Your task to perform on an android device: turn on bluetooth scan Image 0: 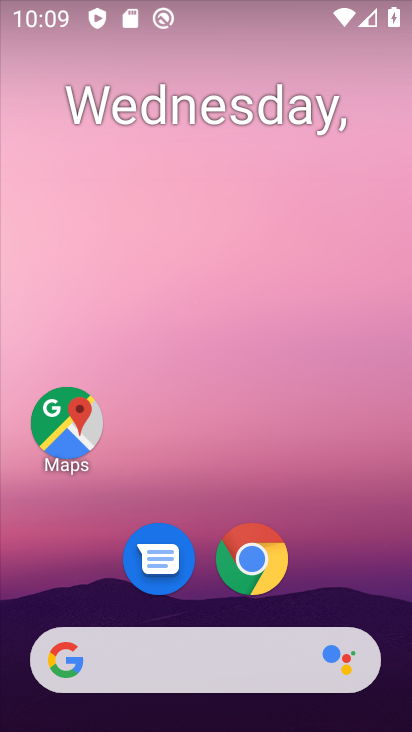
Step 0: drag from (354, 533) to (409, 431)
Your task to perform on an android device: turn on bluetooth scan Image 1: 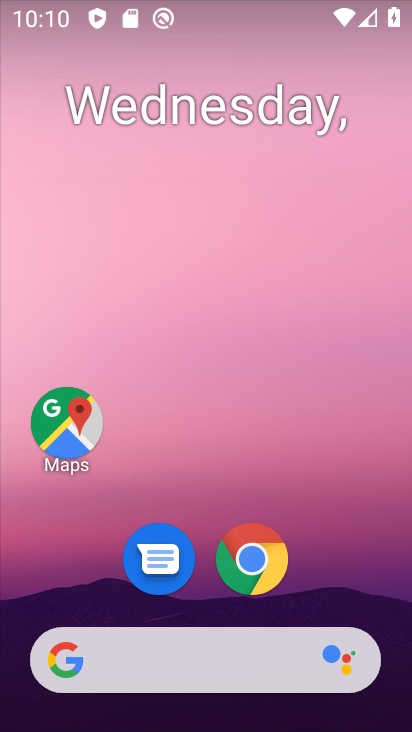
Step 1: drag from (337, 598) to (331, 15)
Your task to perform on an android device: turn on bluetooth scan Image 2: 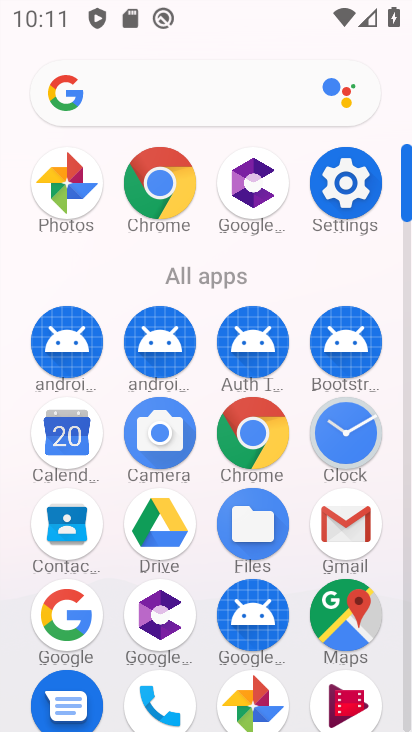
Step 2: click (357, 204)
Your task to perform on an android device: turn on bluetooth scan Image 3: 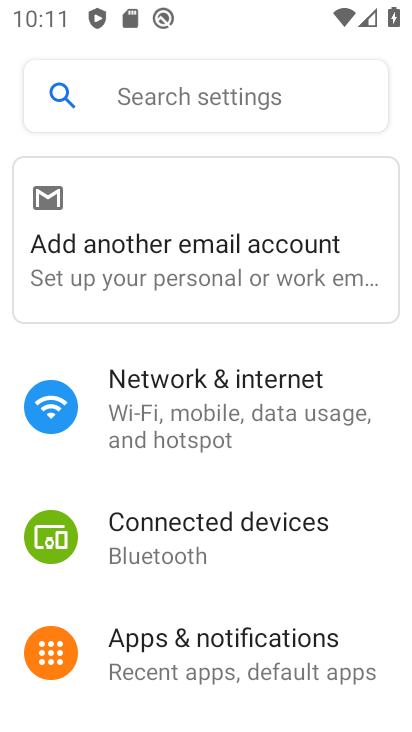
Step 3: drag from (305, 644) to (266, 328)
Your task to perform on an android device: turn on bluetooth scan Image 4: 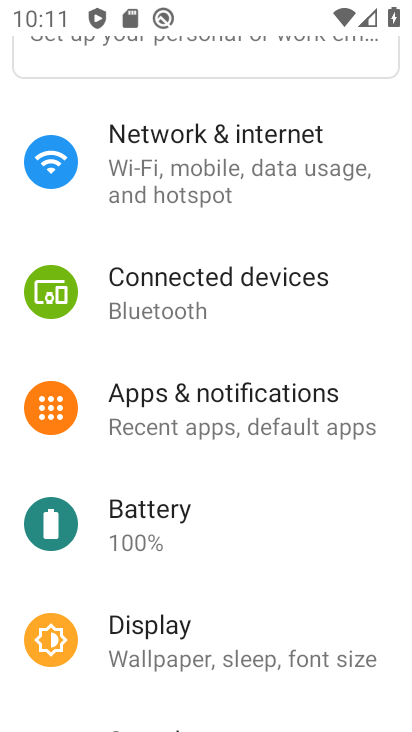
Step 4: drag from (324, 486) to (315, 310)
Your task to perform on an android device: turn on bluetooth scan Image 5: 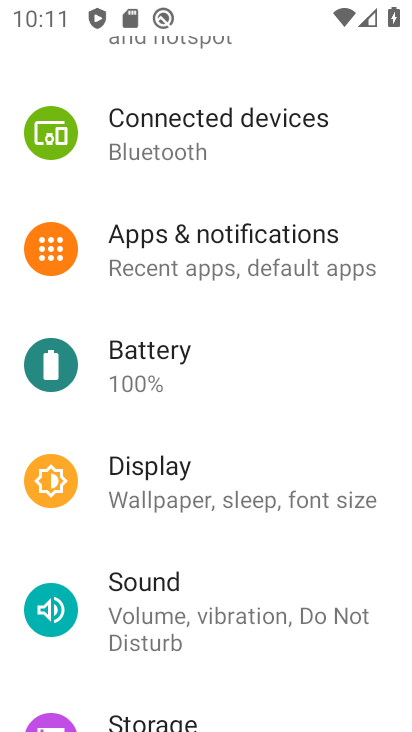
Step 5: click (180, 504)
Your task to perform on an android device: turn on bluetooth scan Image 6: 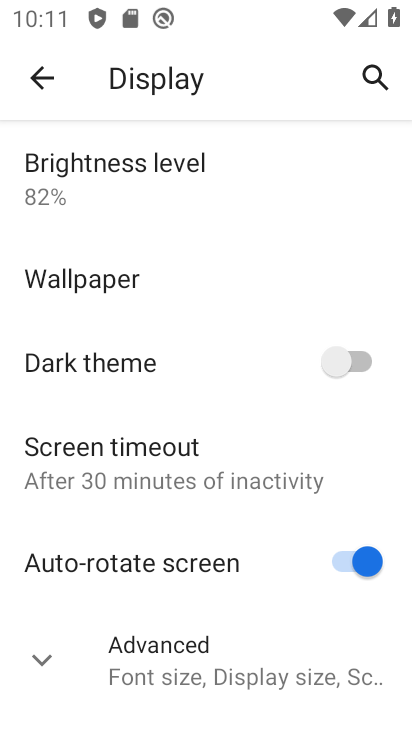
Step 6: click (57, 89)
Your task to perform on an android device: turn on bluetooth scan Image 7: 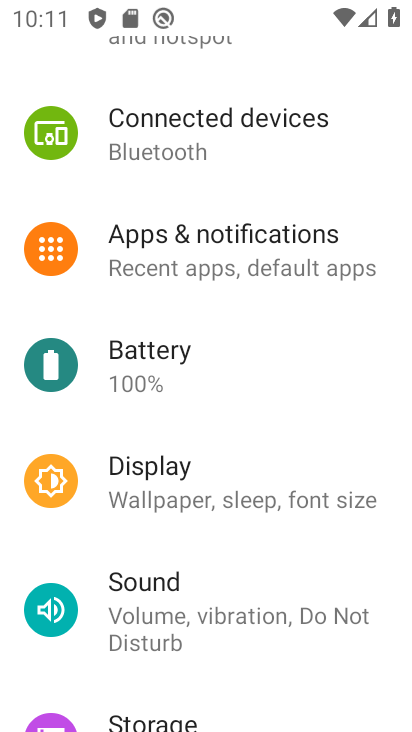
Step 7: drag from (211, 652) to (199, 555)
Your task to perform on an android device: turn on bluetooth scan Image 8: 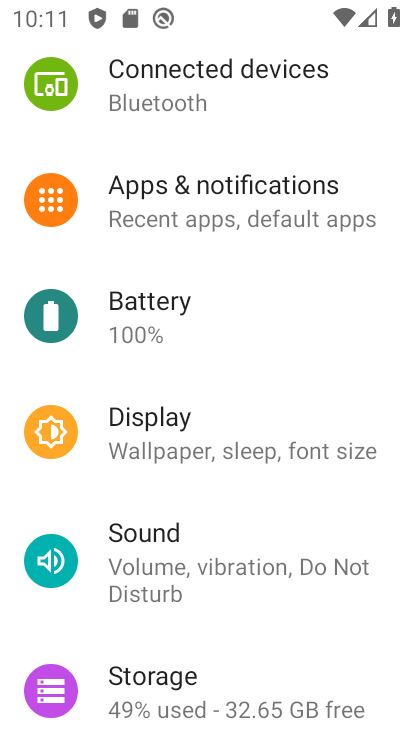
Step 8: drag from (319, 663) to (250, 238)
Your task to perform on an android device: turn on bluetooth scan Image 9: 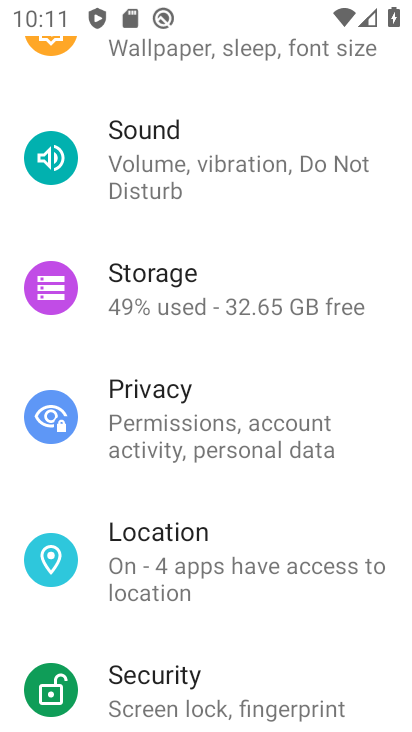
Step 9: drag from (285, 703) to (294, 329)
Your task to perform on an android device: turn on bluetooth scan Image 10: 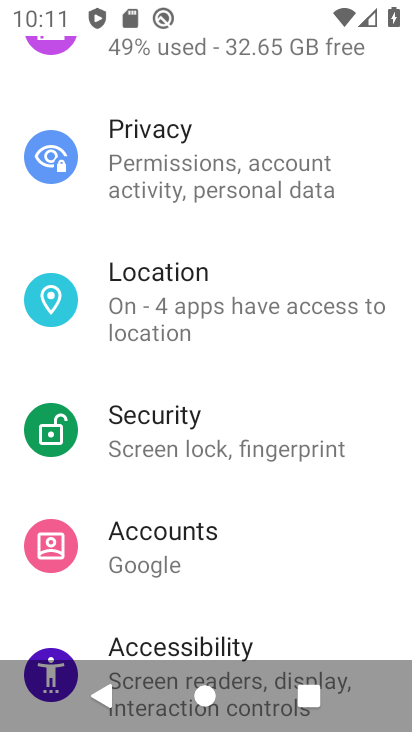
Step 10: drag from (251, 559) to (311, 165)
Your task to perform on an android device: turn on bluetooth scan Image 11: 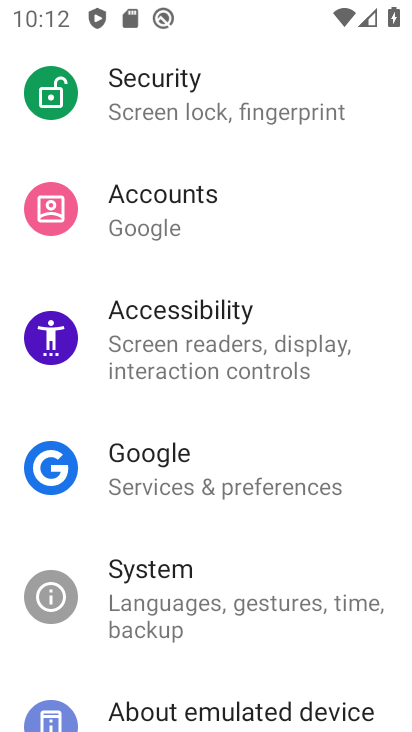
Step 11: drag from (179, 602) to (114, 311)
Your task to perform on an android device: turn on bluetooth scan Image 12: 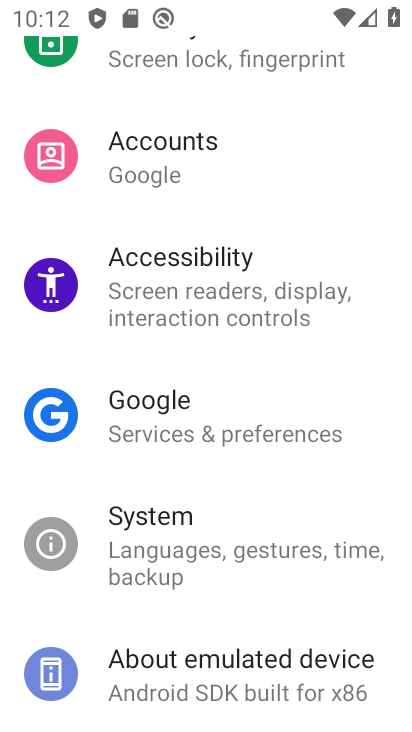
Step 12: drag from (288, 641) to (263, 544)
Your task to perform on an android device: turn on bluetooth scan Image 13: 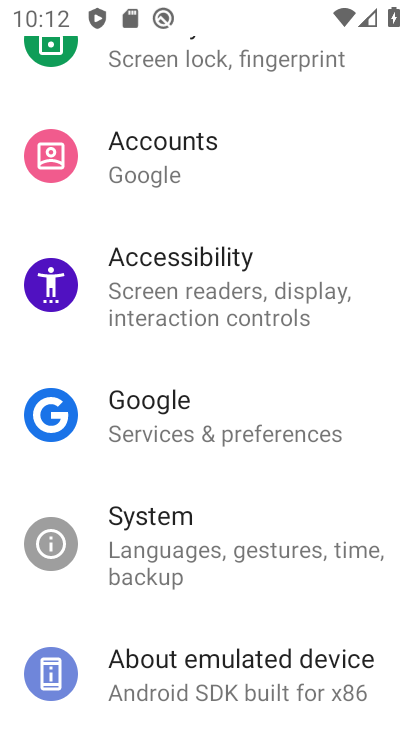
Step 13: drag from (243, 271) to (279, 701)
Your task to perform on an android device: turn on bluetooth scan Image 14: 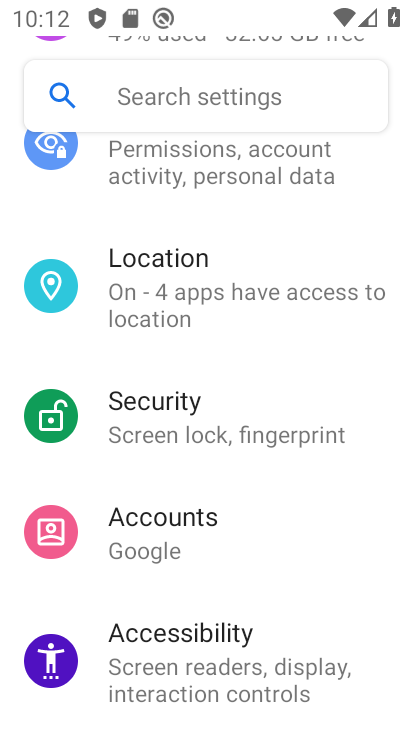
Step 14: click (246, 290)
Your task to perform on an android device: turn on bluetooth scan Image 15: 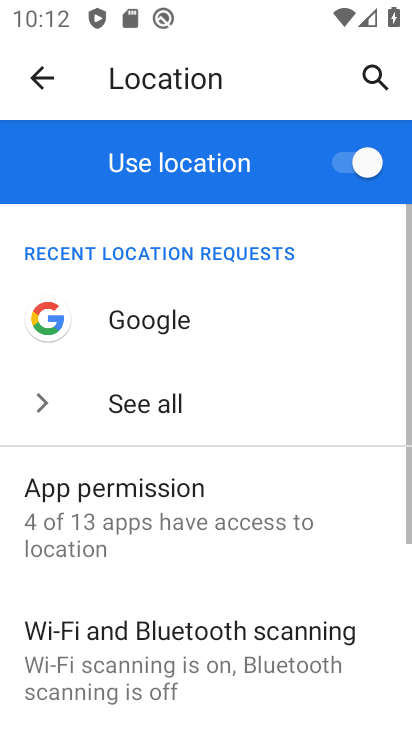
Step 15: click (280, 590)
Your task to perform on an android device: turn on bluetooth scan Image 16: 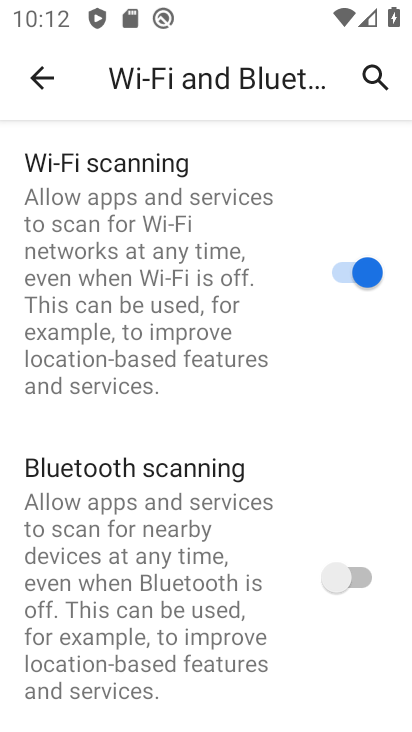
Step 16: click (310, 597)
Your task to perform on an android device: turn on bluetooth scan Image 17: 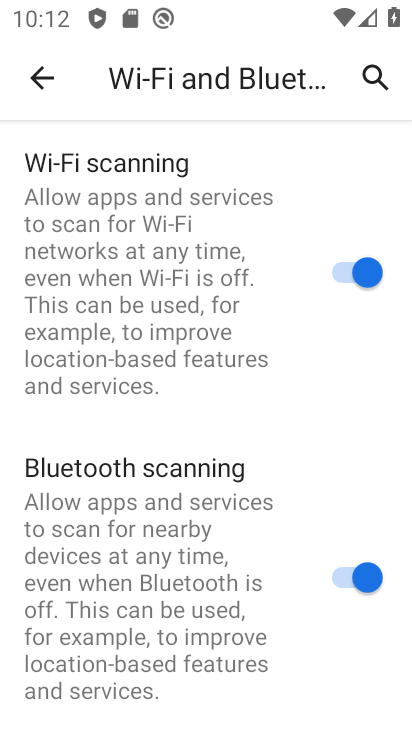
Step 17: task complete